Your task to perform on an android device: Open Youtube and go to the subscriptions tab Image 0: 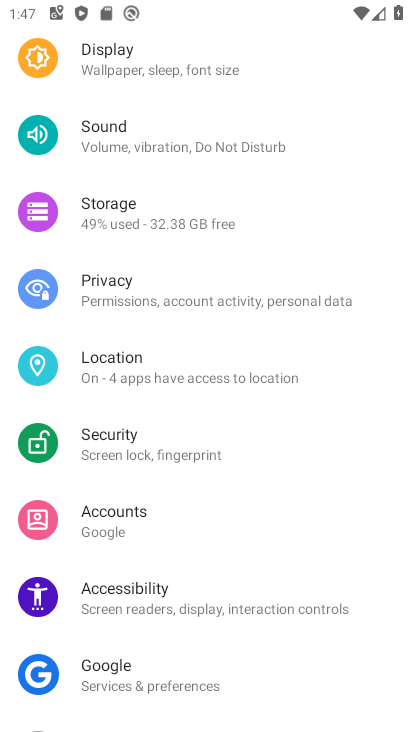
Step 0: press home button
Your task to perform on an android device: Open Youtube and go to the subscriptions tab Image 1: 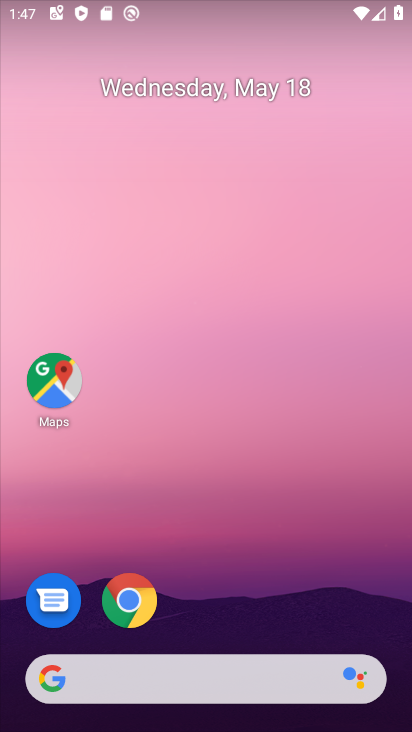
Step 1: drag from (251, 565) to (144, 115)
Your task to perform on an android device: Open Youtube and go to the subscriptions tab Image 2: 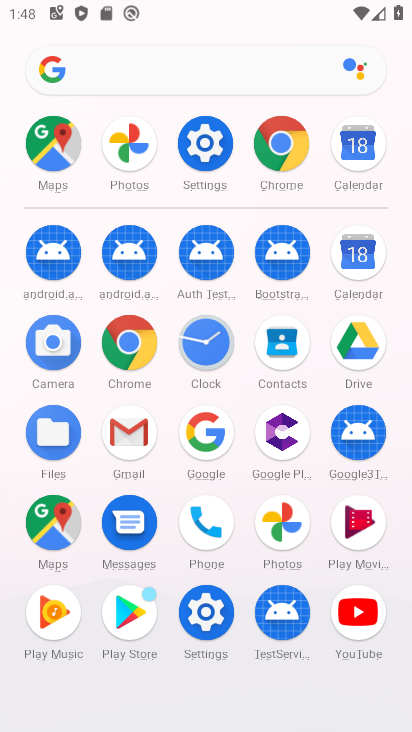
Step 2: click (359, 615)
Your task to perform on an android device: Open Youtube and go to the subscriptions tab Image 3: 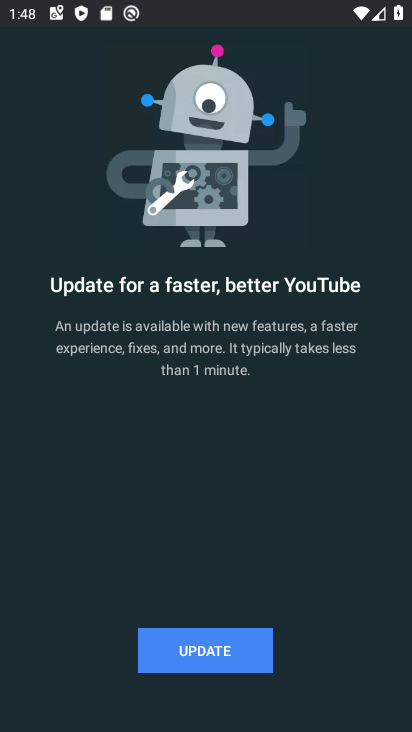
Step 3: click (213, 658)
Your task to perform on an android device: Open Youtube and go to the subscriptions tab Image 4: 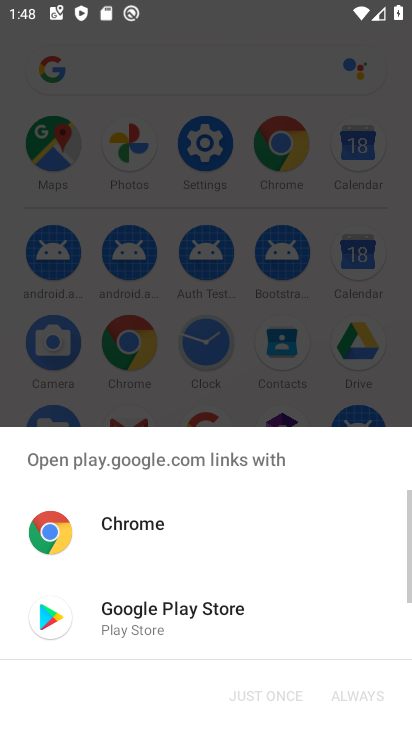
Step 4: click (183, 615)
Your task to perform on an android device: Open Youtube and go to the subscriptions tab Image 5: 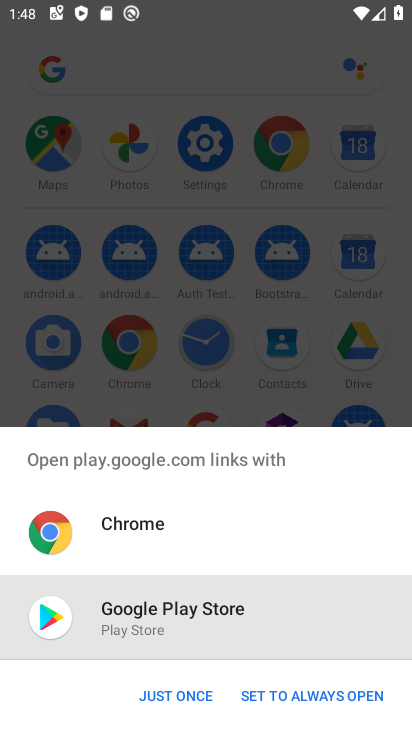
Step 5: click (162, 698)
Your task to perform on an android device: Open Youtube and go to the subscriptions tab Image 6: 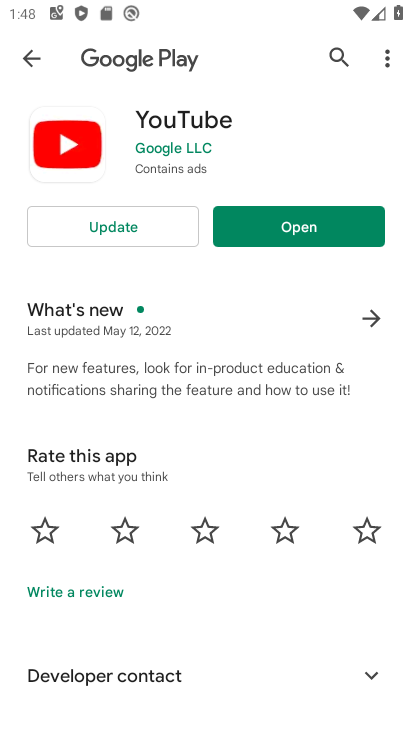
Step 6: click (136, 225)
Your task to perform on an android device: Open Youtube and go to the subscriptions tab Image 7: 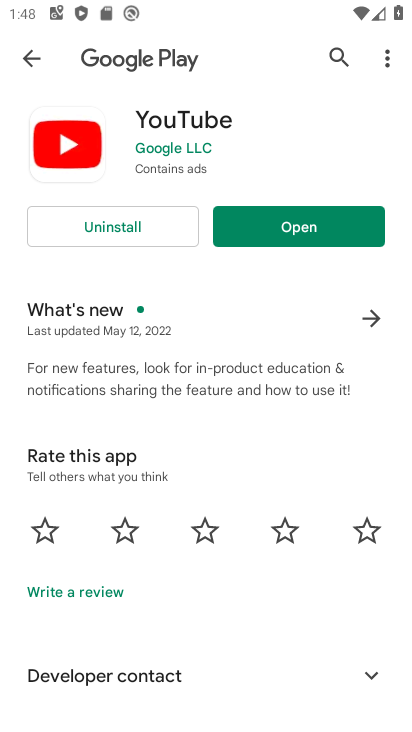
Step 7: click (263, 211)
Your task to perform on an android device: Open Youtube and go to the subscriptions tab Image 8: 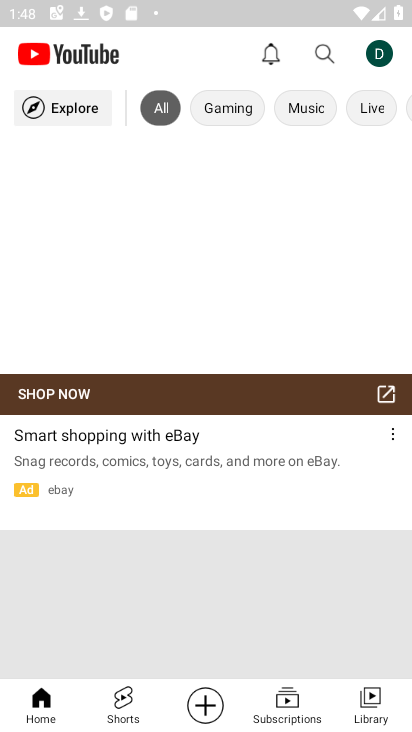
Step 8: click (284, 702)
Your task to perform on an android device: Open Youtube and go to the subscriptions tab Image 9: 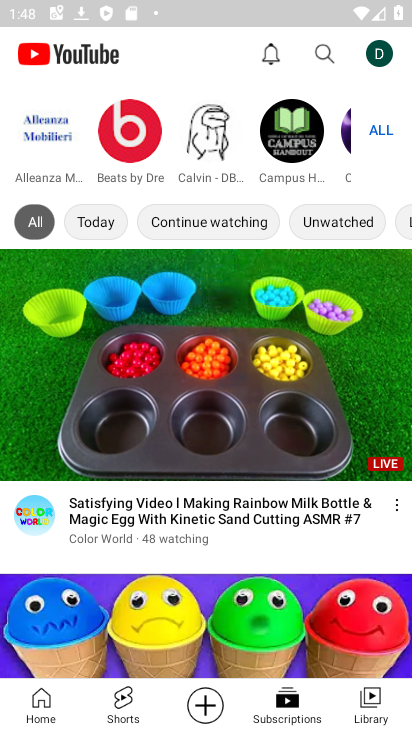
Step 9: task complete